Your task to perform on an android device: toggle notifications settings in the gmail app Image 0: 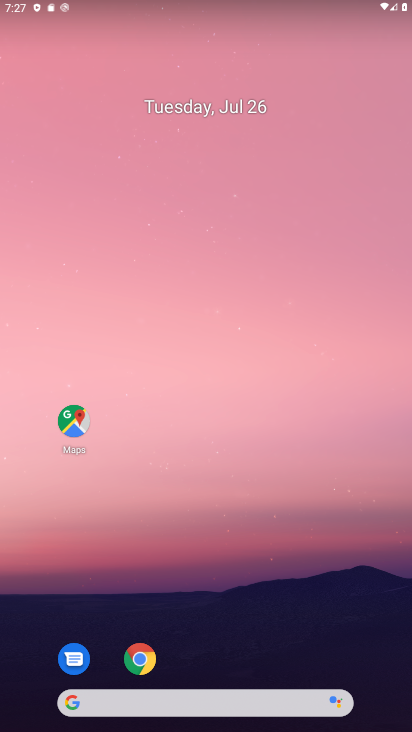
Step 0: click (216, 640)
Your task to perform on an android device: toggle notifications settings in the gmail app Image 1: 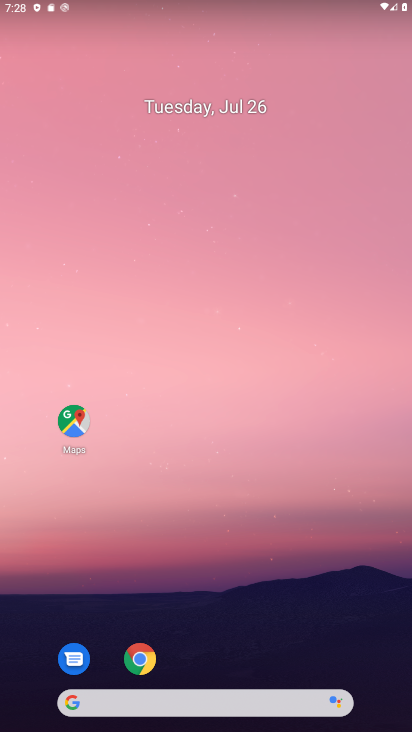
Step 1: drag from (215, 674) to (86, 64)
Your task to perform on an android device: toggle notifications settings in the gmail app Image 2: 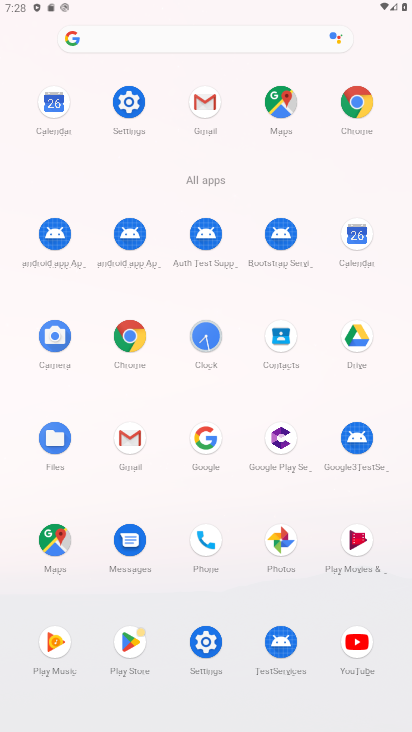
Step 2: click (132, 434)
Your task to perform on an android device: toggle notifications settings in the gmail app Image 3: 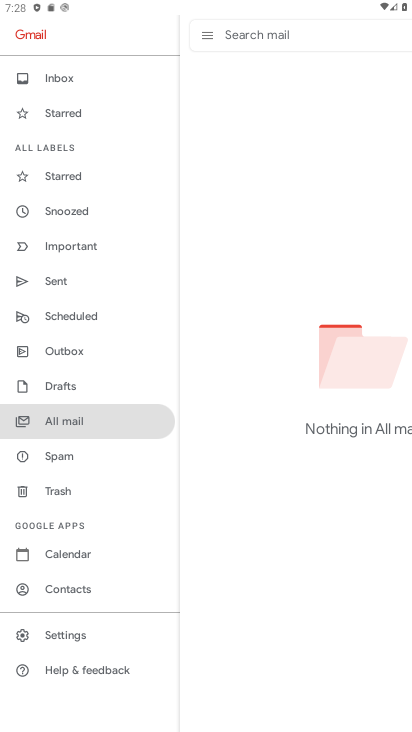
Step 3: click (30, 635)
Your task to perform on an android device: toggle notifications settings in the gmail app Image 4: 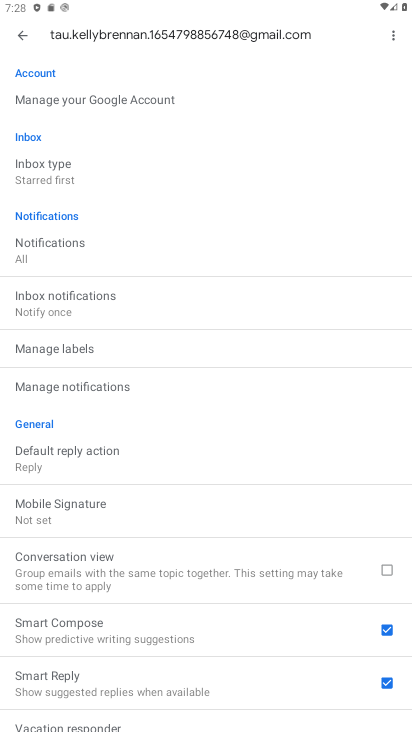
Step 4: click (40, 242)
Your task to perform on an android device: toggle notifications settings in the gmail app Image 5: 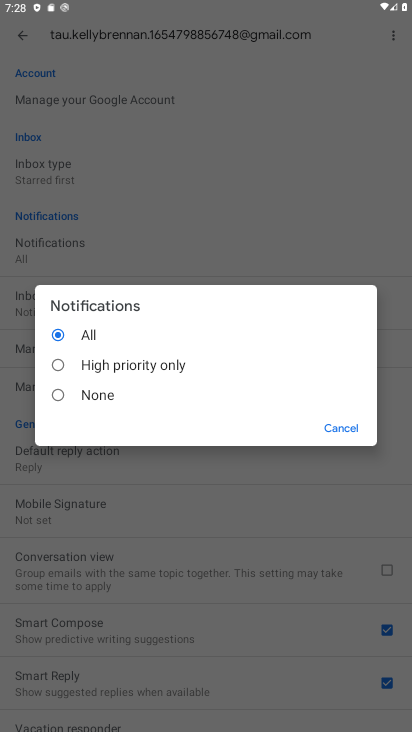
Step 5: click (38, 94)
Your task to perform on an android device: toggle notifications settings in the gmail app Image 6: 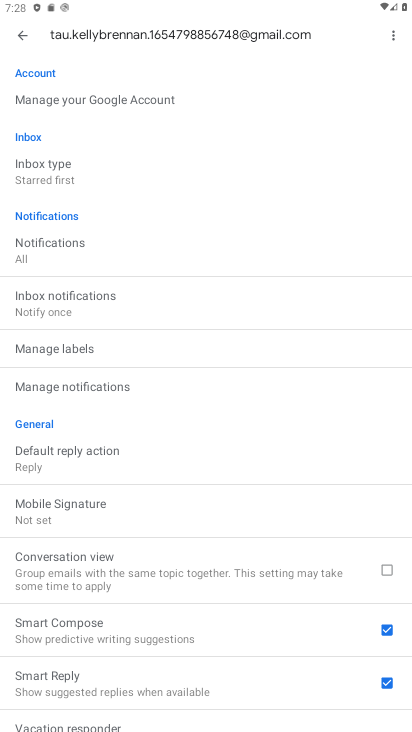
Step 6: click (23, 42)
Your task to perform on an android device: toggle notifications settings in the gmail app Image 7: 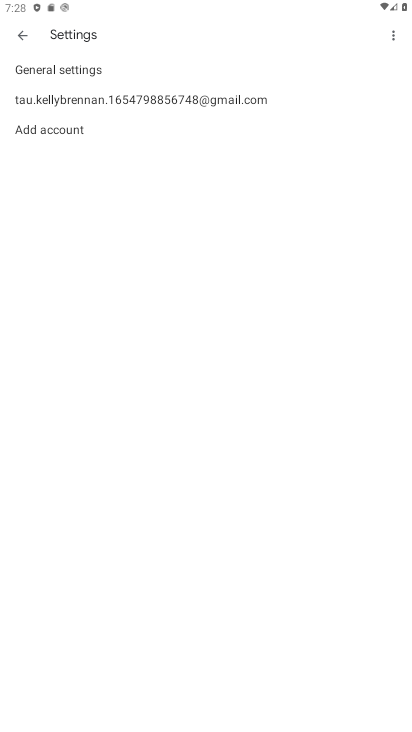
Step 7: click (43, 72)
Your task to perform on an android device: toggle notifications settings in the gmail app Image 8: 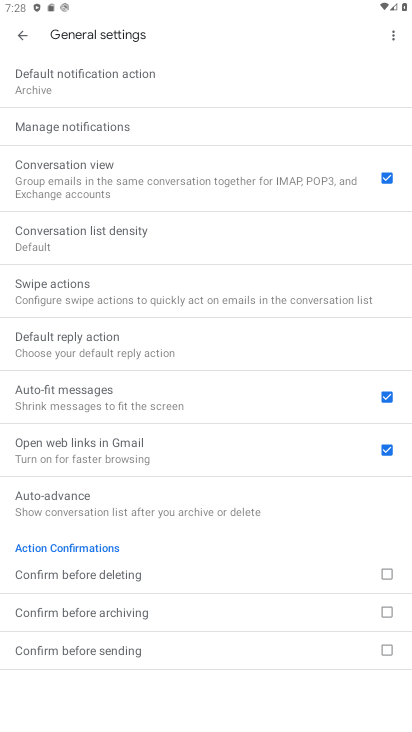
Step 8: click (167, 133)
Your task to perform on an android device: toggle notifications settings in the gmail app Image 9: 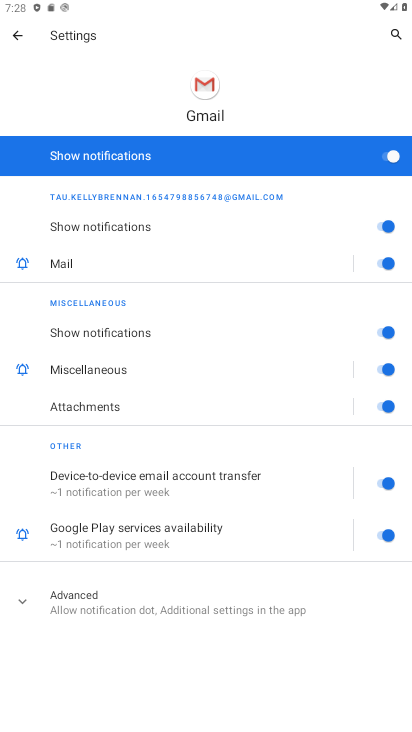
Step 9: click (380, 160)
Your task to perform on an android device: toggle notifications settings in the gmail app Image 10: 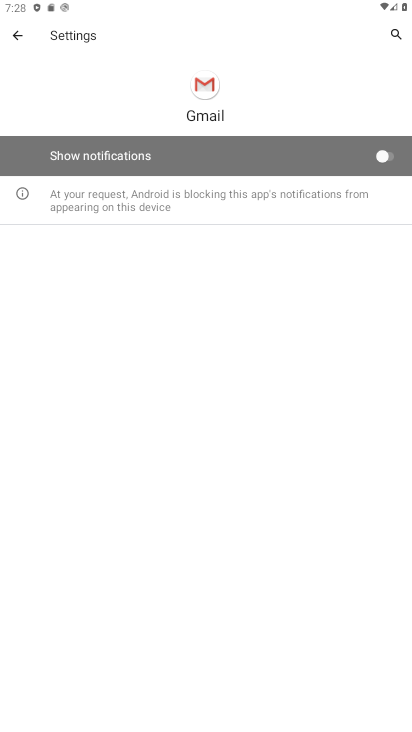
Step 10: task complete